Your task to perform on an android device: Go to CNN.com Image 0: 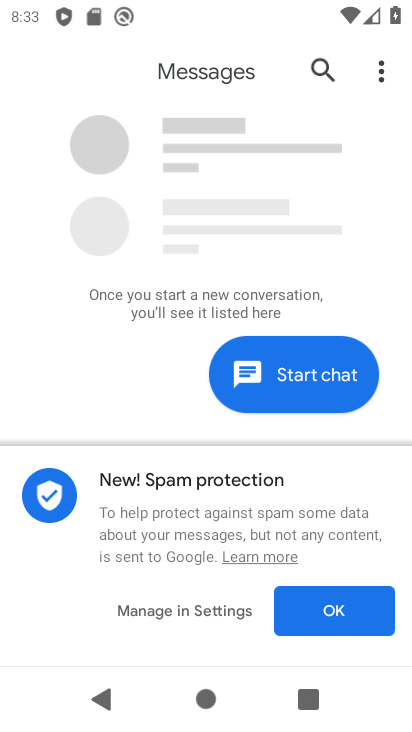
Step 0: press home button
Your task to perform on an android device: Go to CNN.com Image 1: 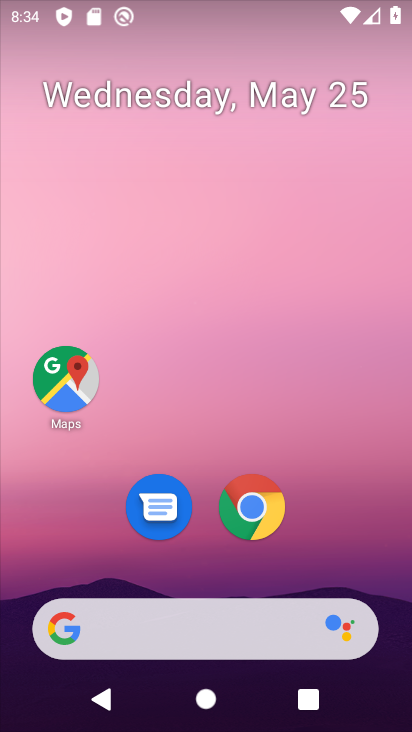
Step 1: drag from (219, 582) to (90, 134)
Your task to perform on an android device: Go to CNN.com Image 2: 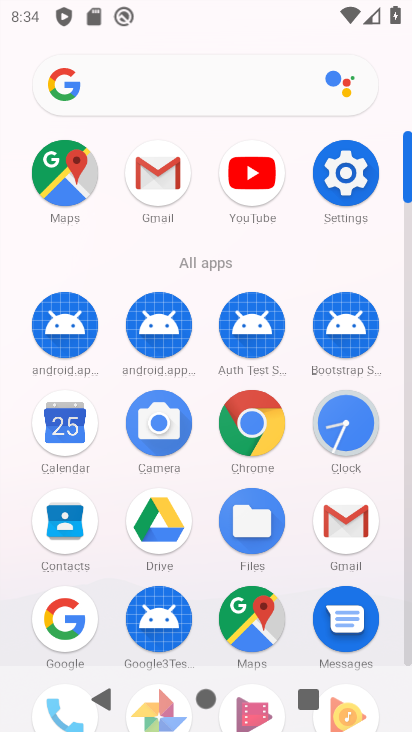
Step 2: click (251, 427)
Your task to perform on an android device: Go to CNN.com Image 3: 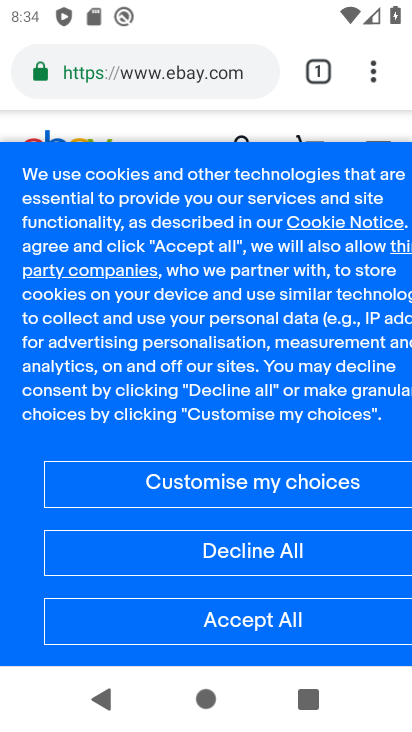
Step 3: click (322, 95)
Your task to perform on an android device: Go to CNN.com Image 4: 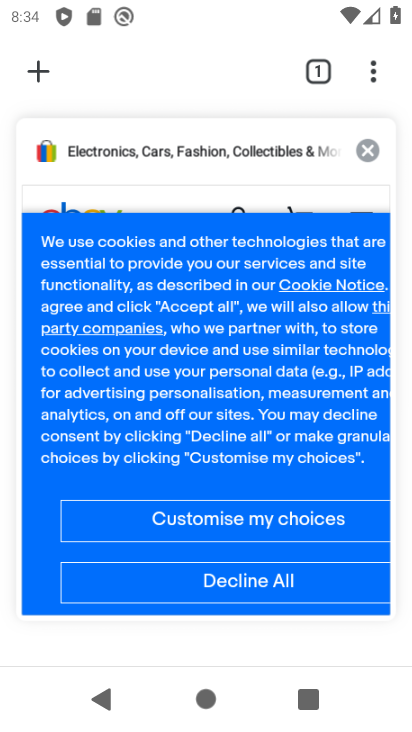
Step 4: click (40, 70)
Your task to perform on an android device: Go to CNN.com Image 5: 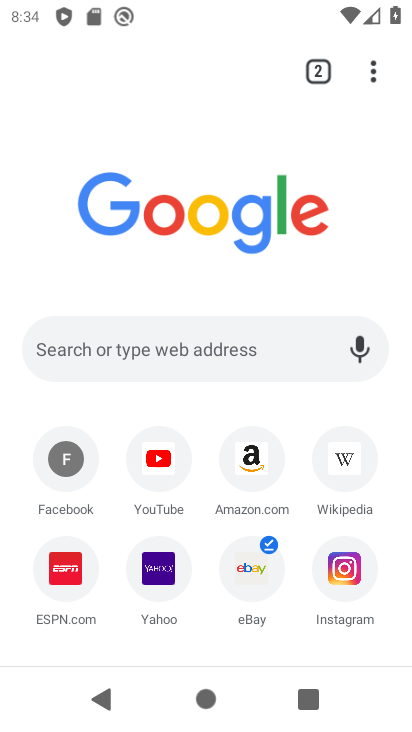
Step 5: click (176, 372)
Your task to perform on an android device: Go to CNN.com Image 6: 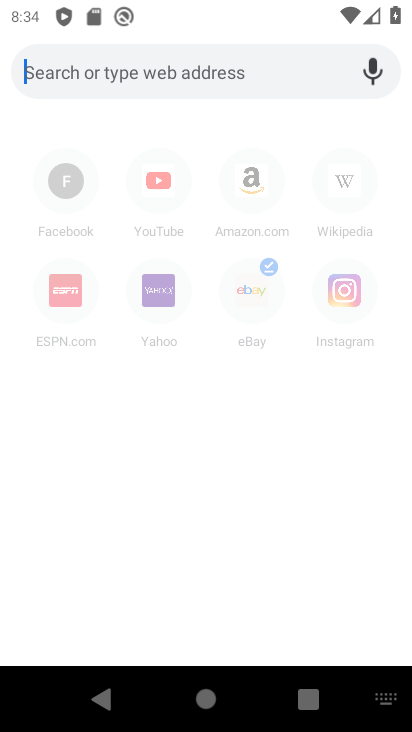
Step 6: type "cnn"
Your task to perform on an android device: Go to CNN.com Image 7: 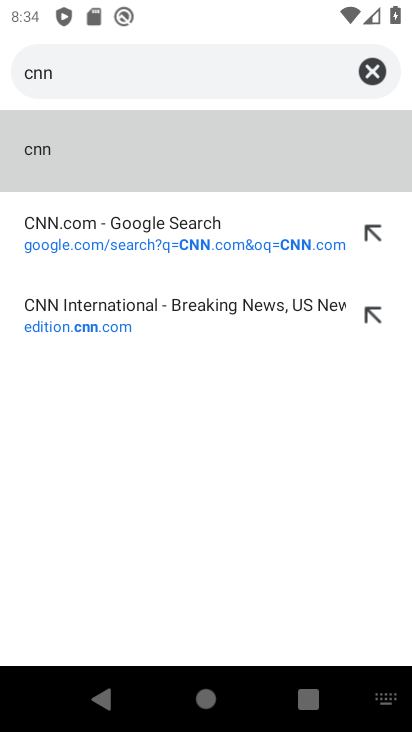
Step 7: click (197, 220)
Your task to perform on an android device: Go to CNN.com Image 8: 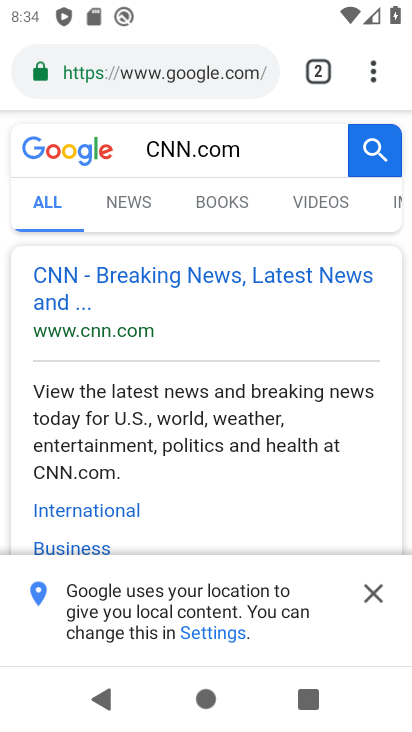
Step 8: task complete